Your task to perform on an android device: Go to wifi settings Image 0: 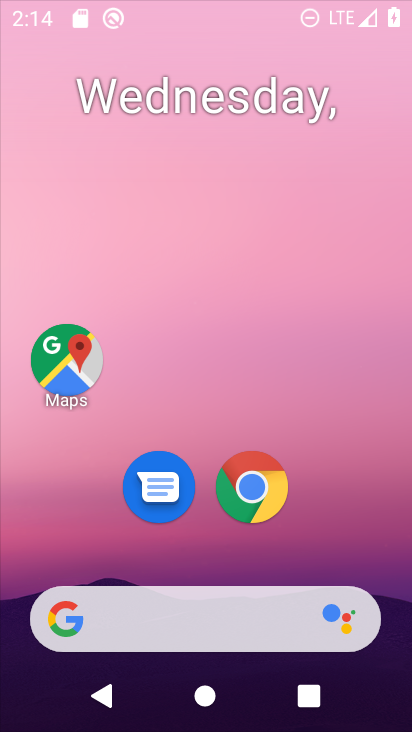
Step 0: click (207, 58)
Your task to perform on an android device: Go to wifi settings Image 1: 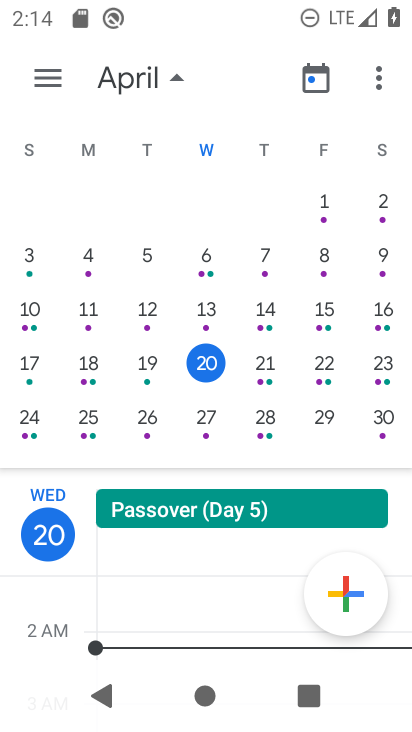
Step 1: press home button
Your task to perform on an android device: Go to wifi settings Image 2: 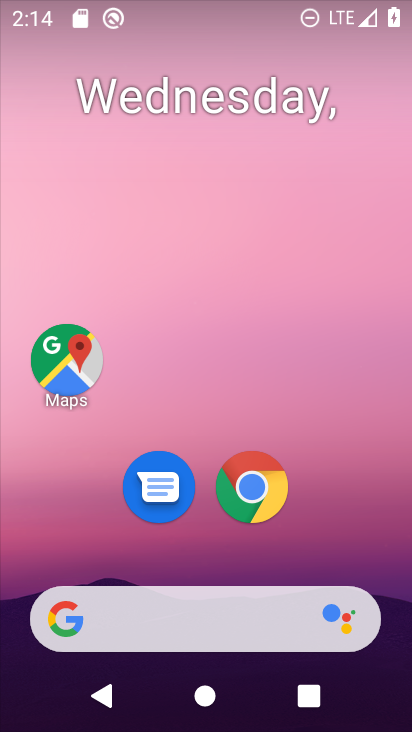
Step 2: drag from (388, 597) to (225, 16)
Your task to perform on an android device: Go to wifi settings Image 3: 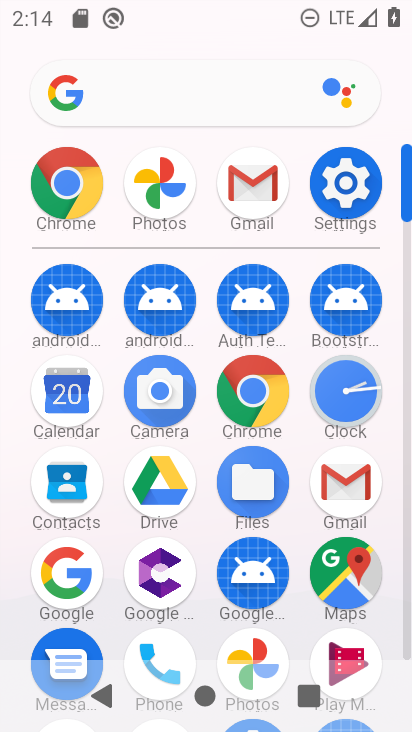
Step 3: click (350, 182)
Your task to perform on an android device: Go to wifi settings Image 4: 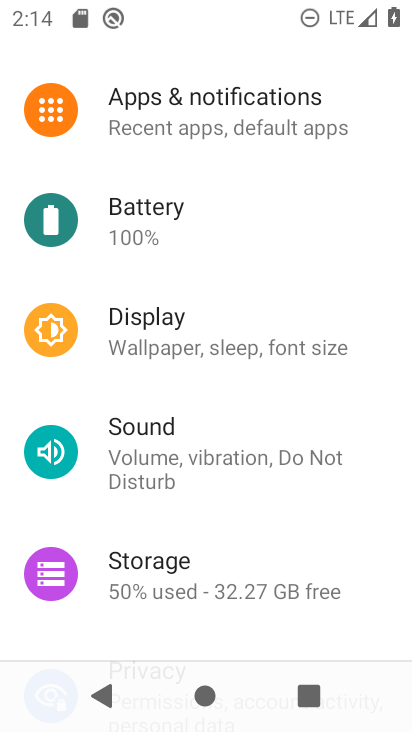
Step 4: drag from (215, 124) to (159, 594)
Your task to perform on an android device: Go to wifi settings Image 5: 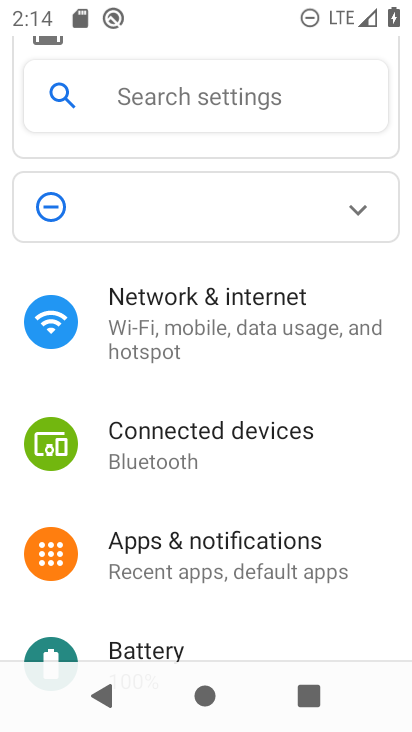
Step 5: click (134, 315)
Your task to perform on an android device: Go to wifi settings Image 6: 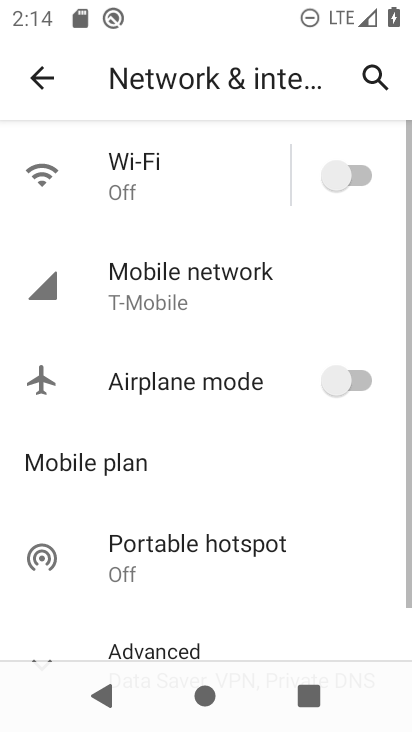
Step 6: click (162, 194)
Your task to perform on an android device: Go to wifi settings Image 7: 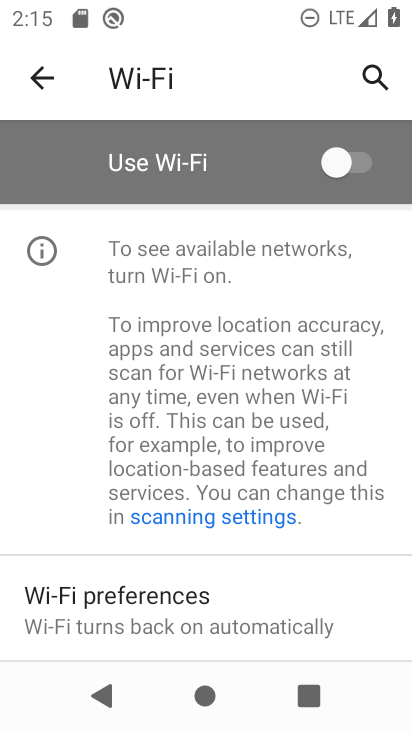
Step 7: task complete